Your task to perform on an android device: check google app version Image 0: 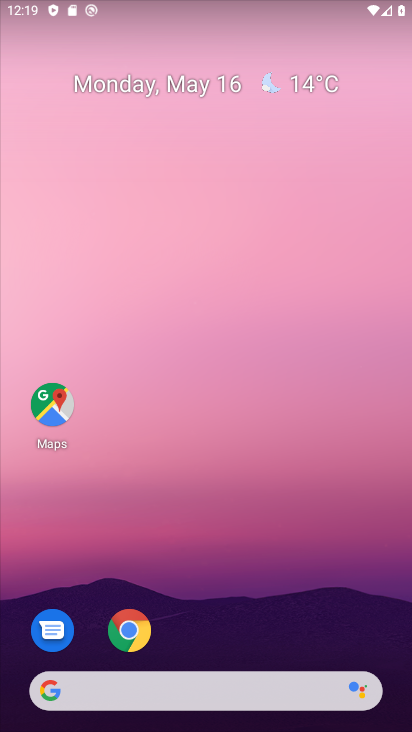
Step 0: drag from (214, 644) to (211, 165)
Your task to perform on an android device: check google app version Image 1: 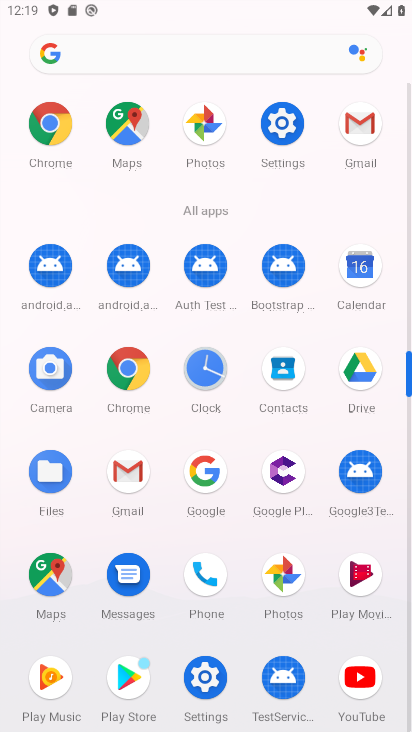
Step 1: click (212, 458)
Your task to perform on an android device: check google app version Image 2: 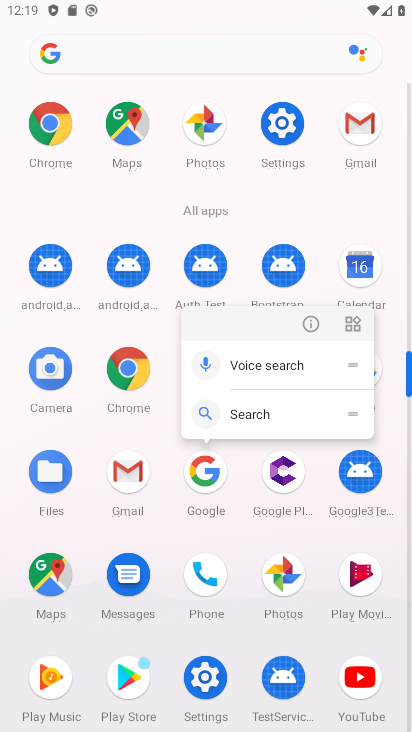
Step 2: click (307, 323)
Your task to perform on an android device: check google app version Image 3: 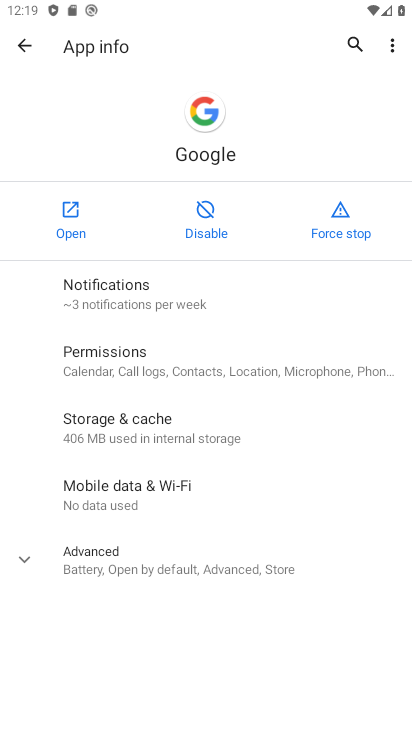
Step 3: click (229, 560)
Your task to perform on an android device: check google app version Image 4: 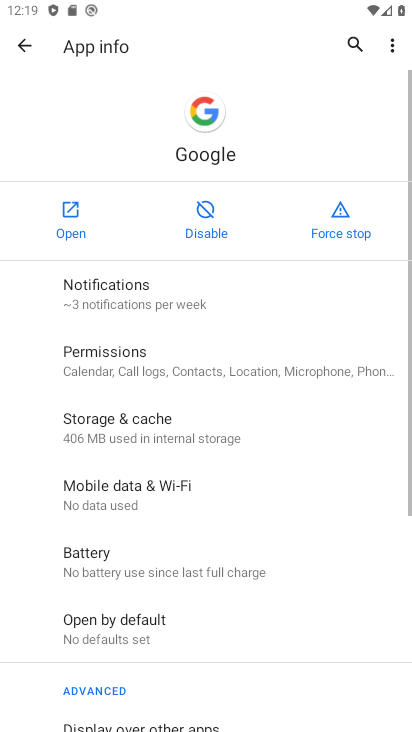
Step 4: task complete